Your task to perform on an android device: Go to calendar. Show me events next week Image 0: 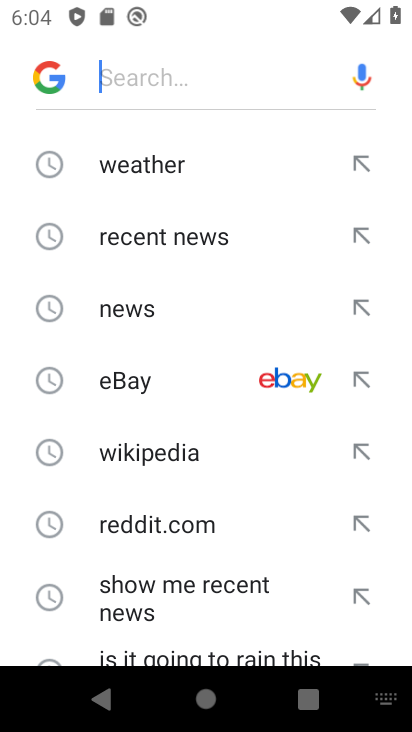
Step 0: press home button
Your task to perform on an android device: Go to calendar. Show me events next week Image 1: 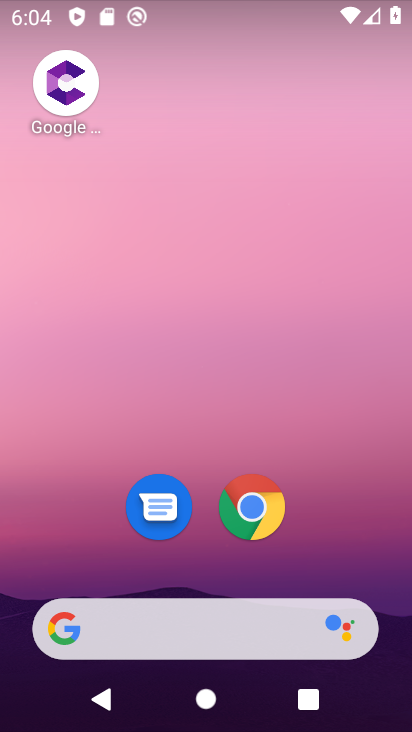
Step 1: drag from (174, 670) to (145, 59)
Your task to perform on an android device: Go to calendar. Show me events next week Image 2: 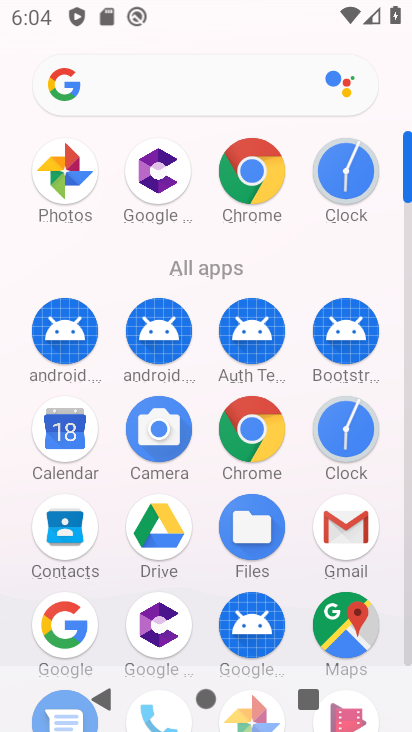
Step 2: click (54, 438)
Your task to perform on an android device: Go to calendar. Show me events next week Image 3: 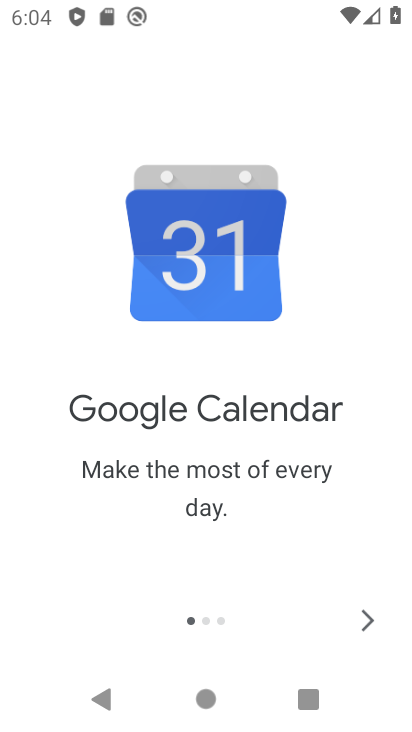
Step 3: click (360, 614)
Your task to perform on an android device: Go to calendar. Show me events next week Image 4: 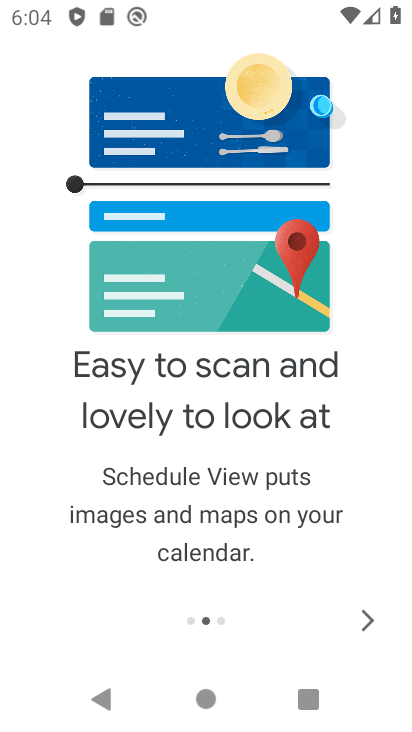
Step 4: click (360, 614)
Your task to perform on an android device: Go to calendar. Show me events next week Image 5: 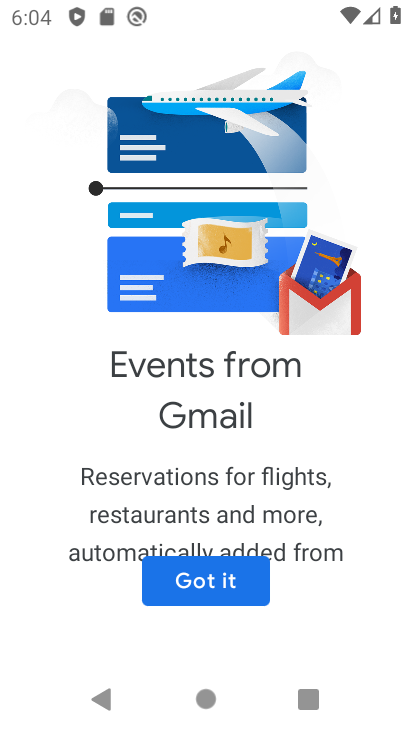
Step 5: click (246, 585)
Your task to perform on an android device: Go to calendar. Show me events next week Image 6: 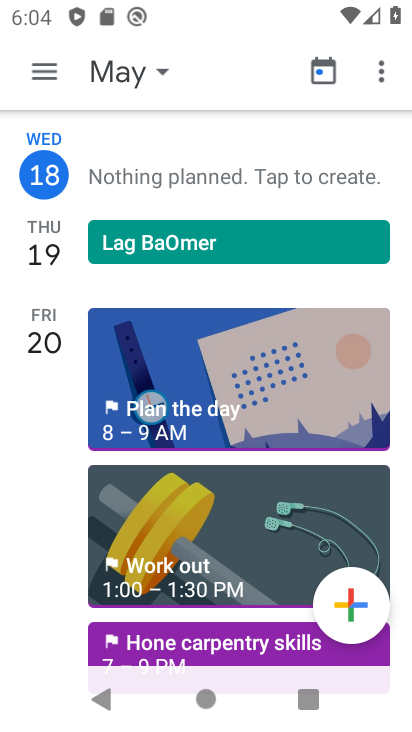
Step 6: click (159, 73)
Your task to perform on an android device: Go to calendar. Show me events next week Image 7: 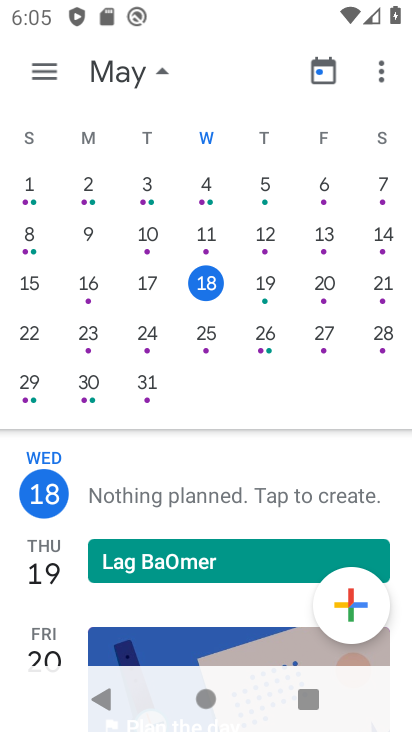
Step 7: click (208, 334)
Your task to perform on an android device: Go to calendar. Show me events next week Image 8: 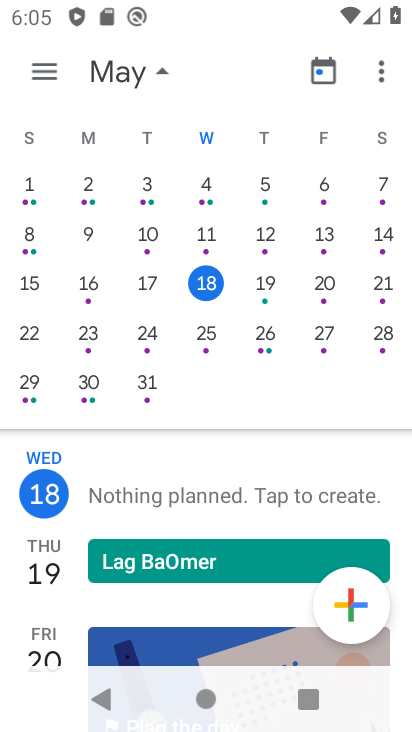
Step 8: click (217, 340)
Your task to perform on an android device: Go to calendar. Show me events next week Image 9: 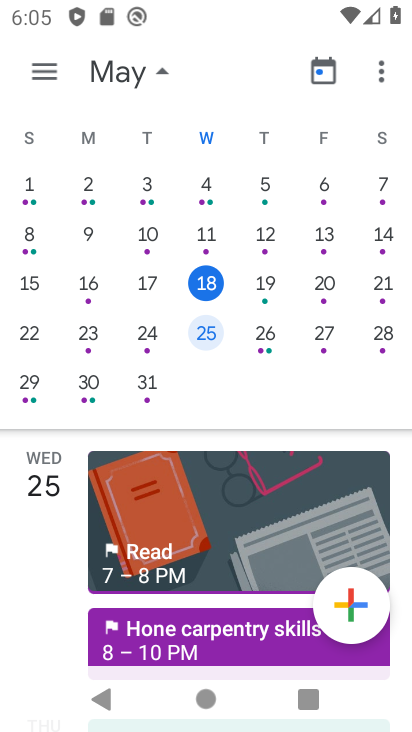
Step 9: click (51, 73)
Your task to perform on an android device: Go to calendar. Show me events next week Image 10: 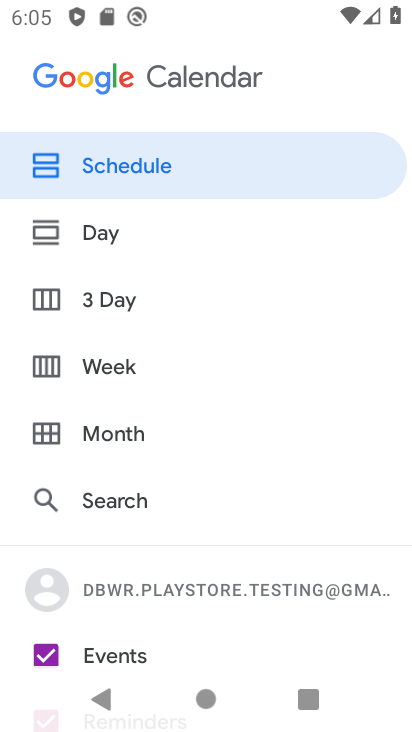
Step 10: click (130, 363)
Your task to perform on an android device: Go to calendar. Show me events next week Image 11: 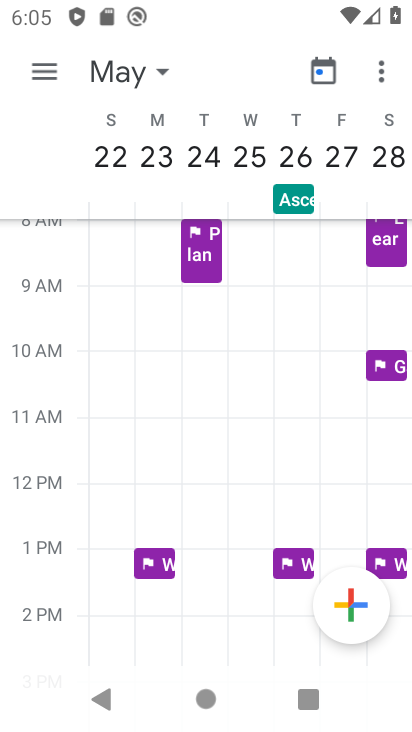
Step 11: task complete